Your task to perform on an android device: View the shopping cart on costco. Image 0: 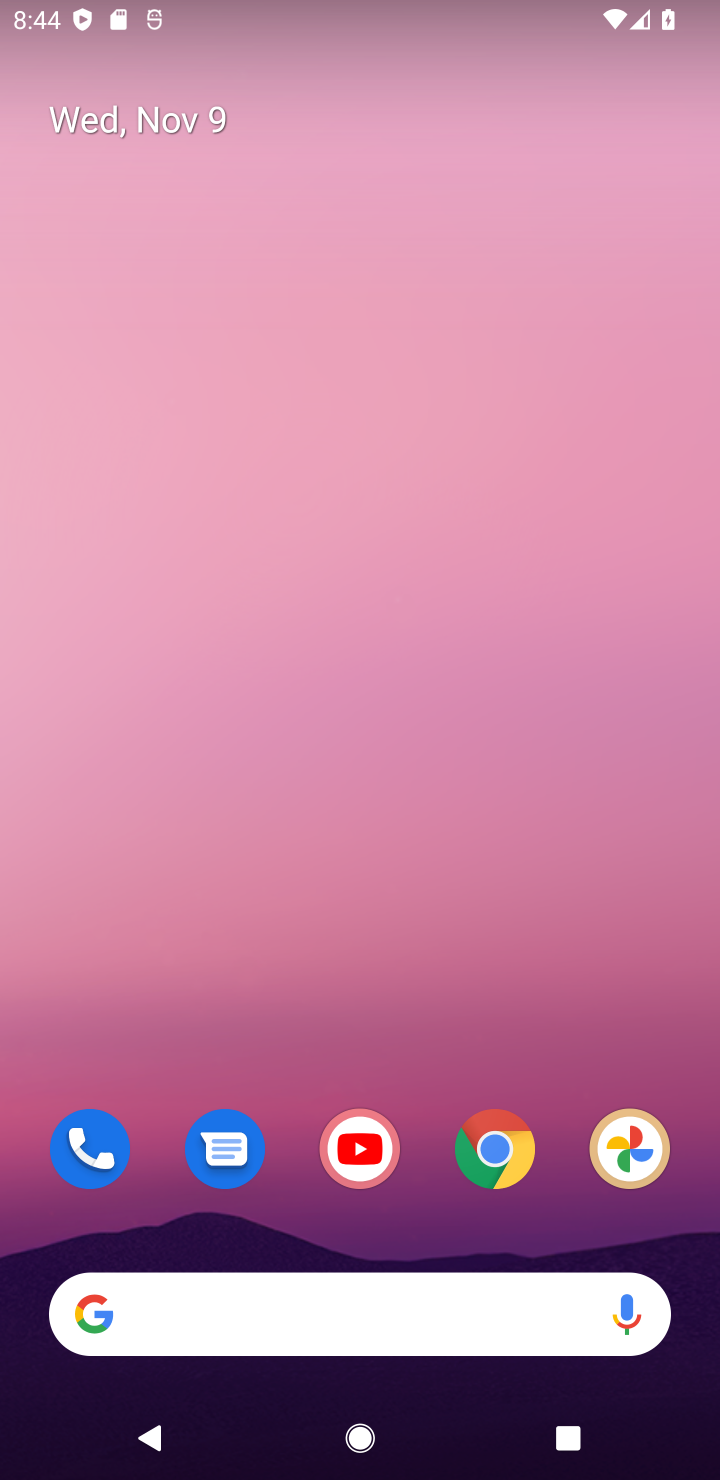
Step 0: click (492, 1157)
Your task to perform on an android device: View the shopping cart on costco. Image 1: 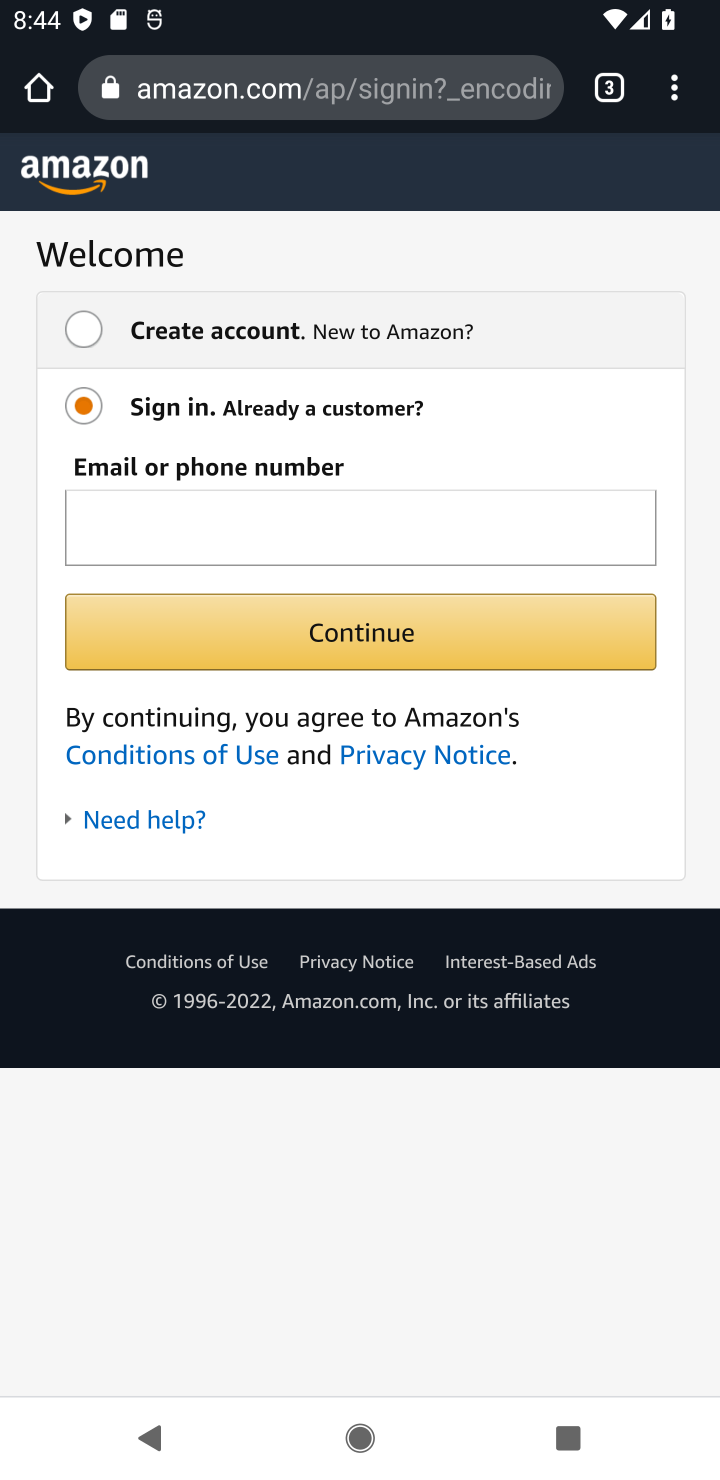
Step 1: press back button
Your task to perform on an android device: View the shopping cart on costco. Image 2: 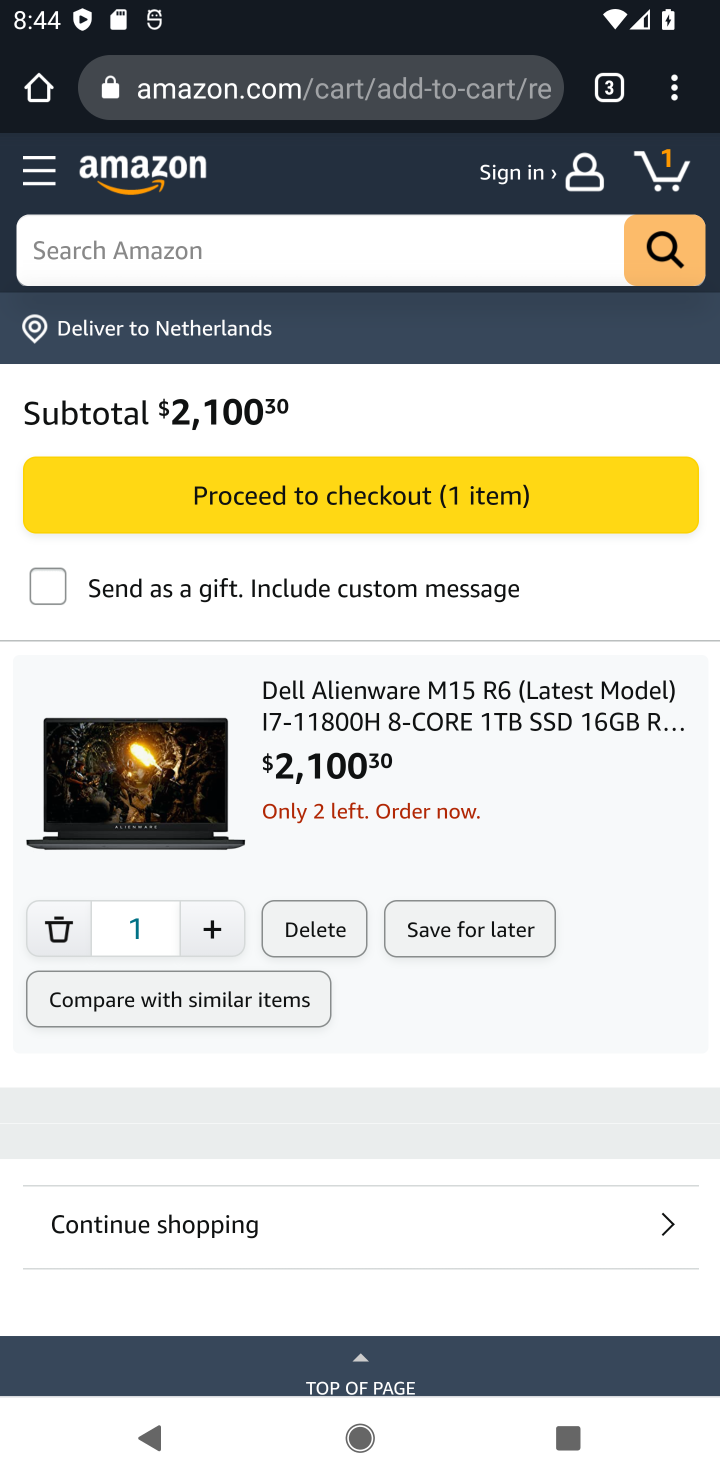
Step 2: click (304, 917)
Your task to perform on an android device: View the shopping cart on costco. Image 3: 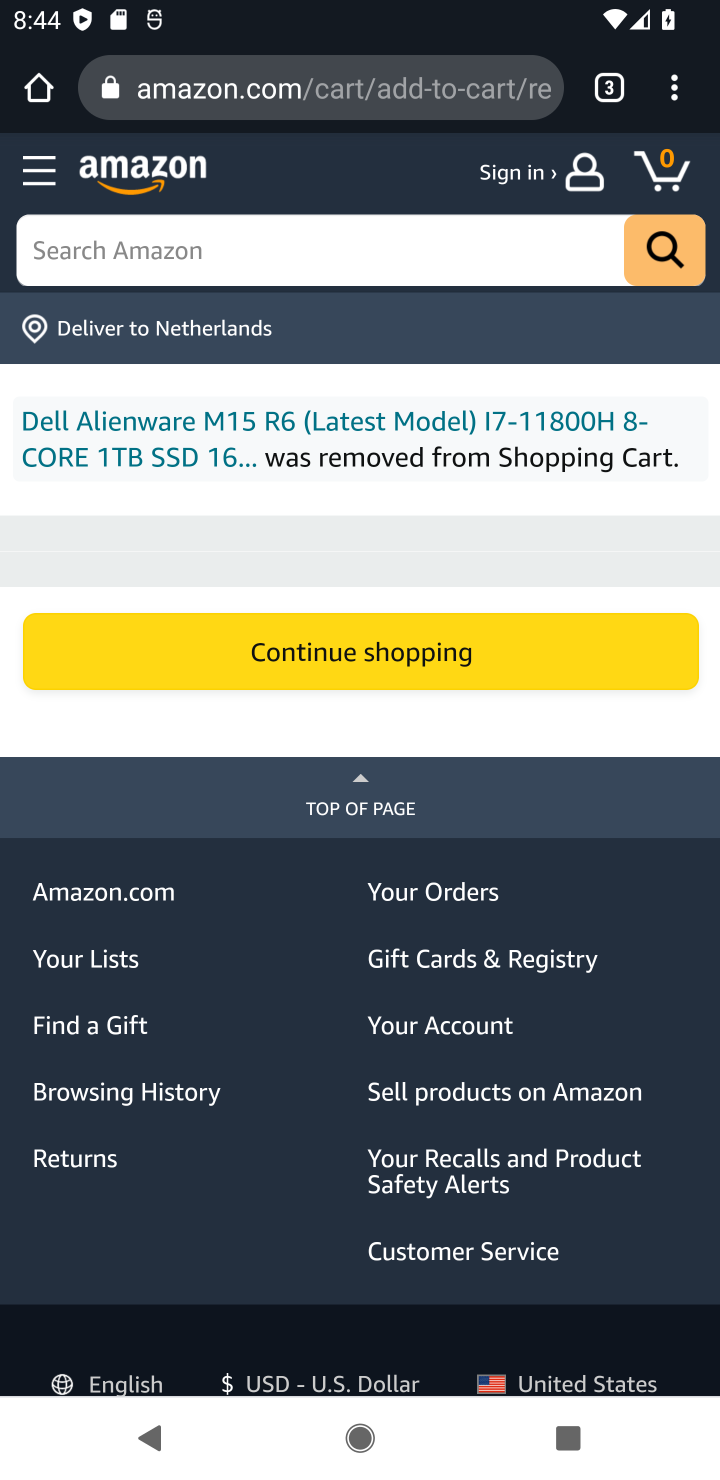
Step 3: click (622, 84)
Your task to perform on an android device: View the shopping cart on costco. Image 4: 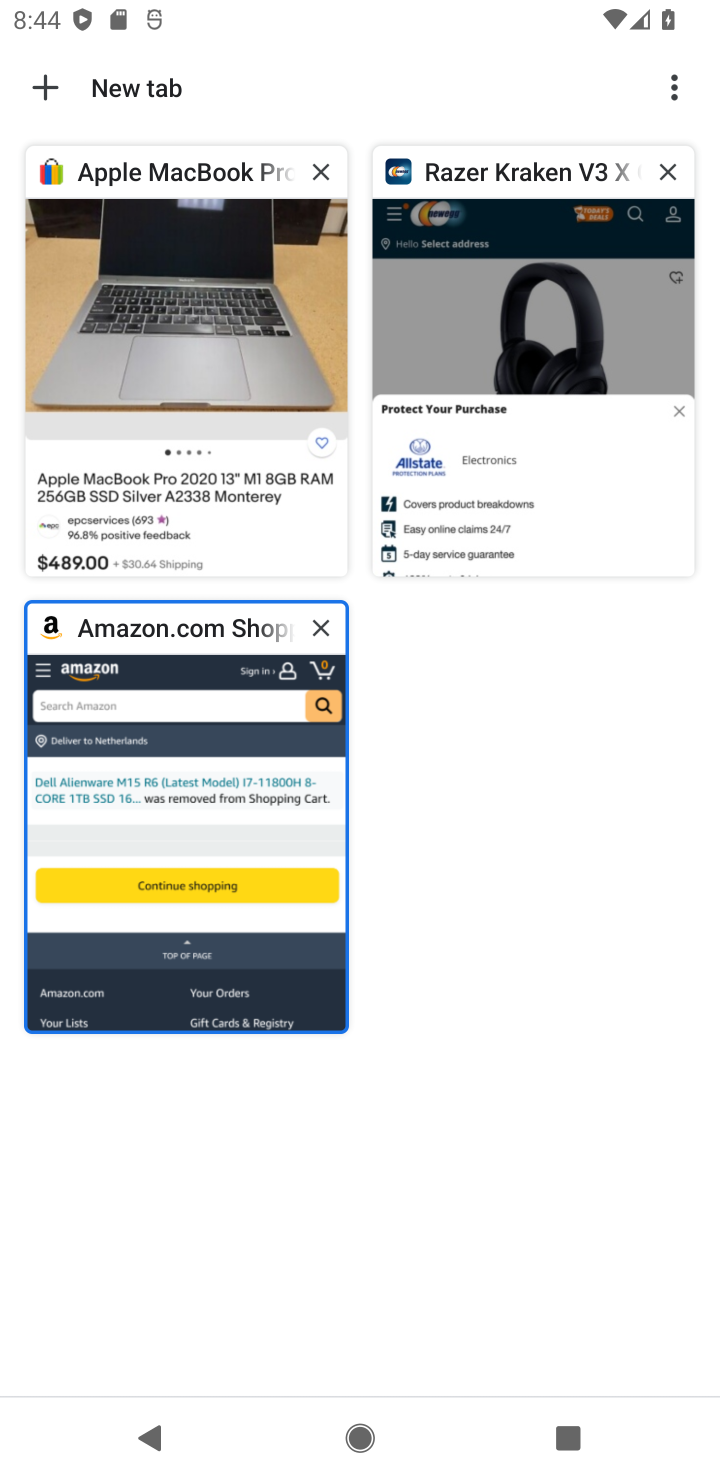
Step 4: click (39, 96)
Your task to perform on an android device: View the shopping cart on costco. Image 5: 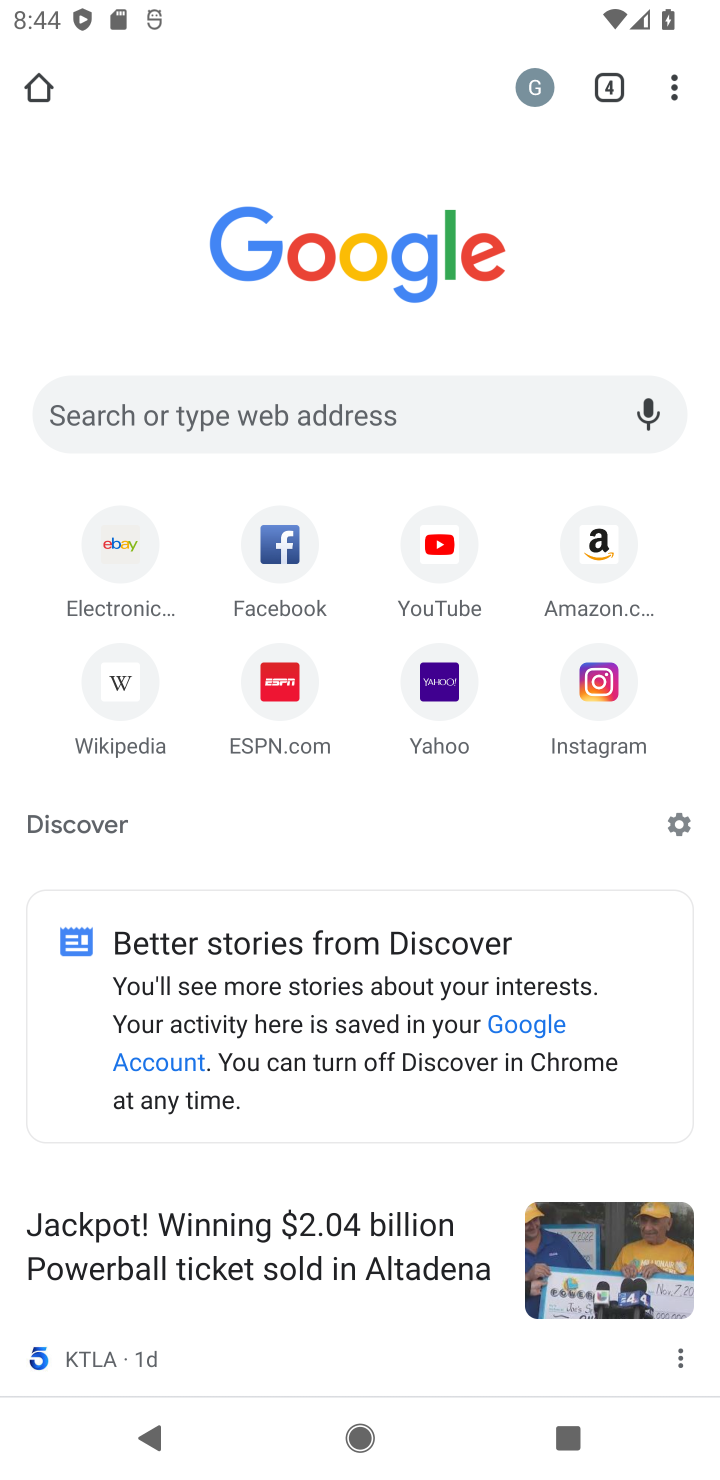
Step 5: click (222, 400)
Your task to perform on an android device: View the shopping cart on costco. Image 6: 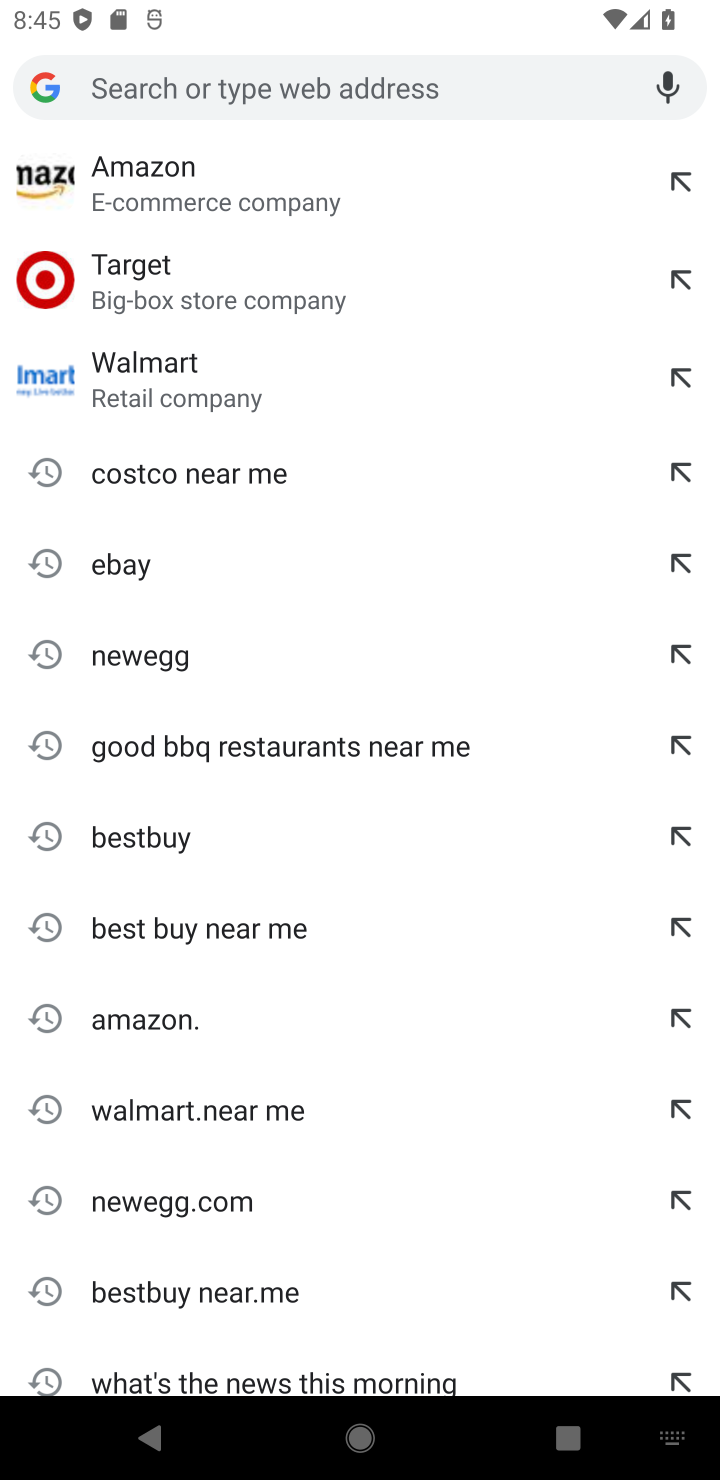
Step 6: click (117, 83)
Your task to perform on an android device: View the shopping cart on costco. Image 7: 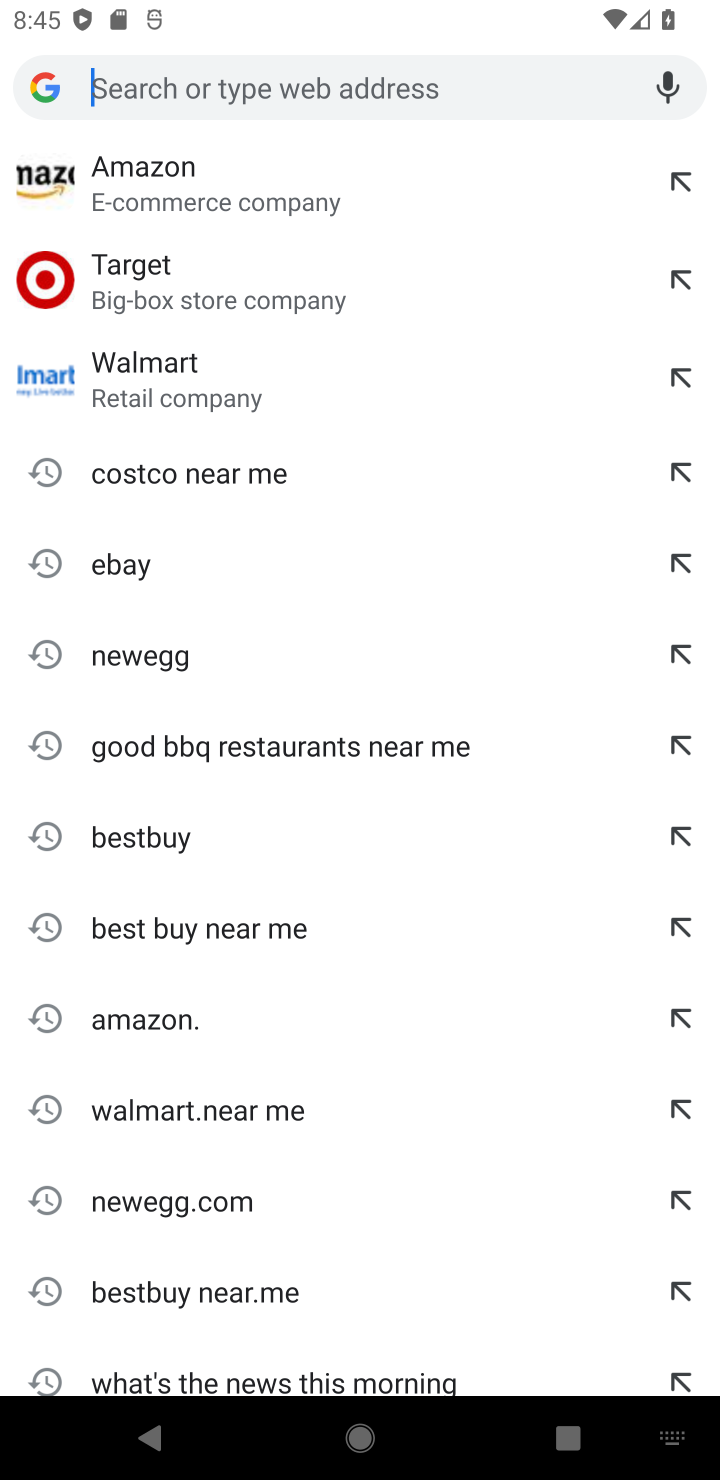
Step 7: type "costco"
Your task to perform on an android device: View the shopping cart on costco. Image 8: 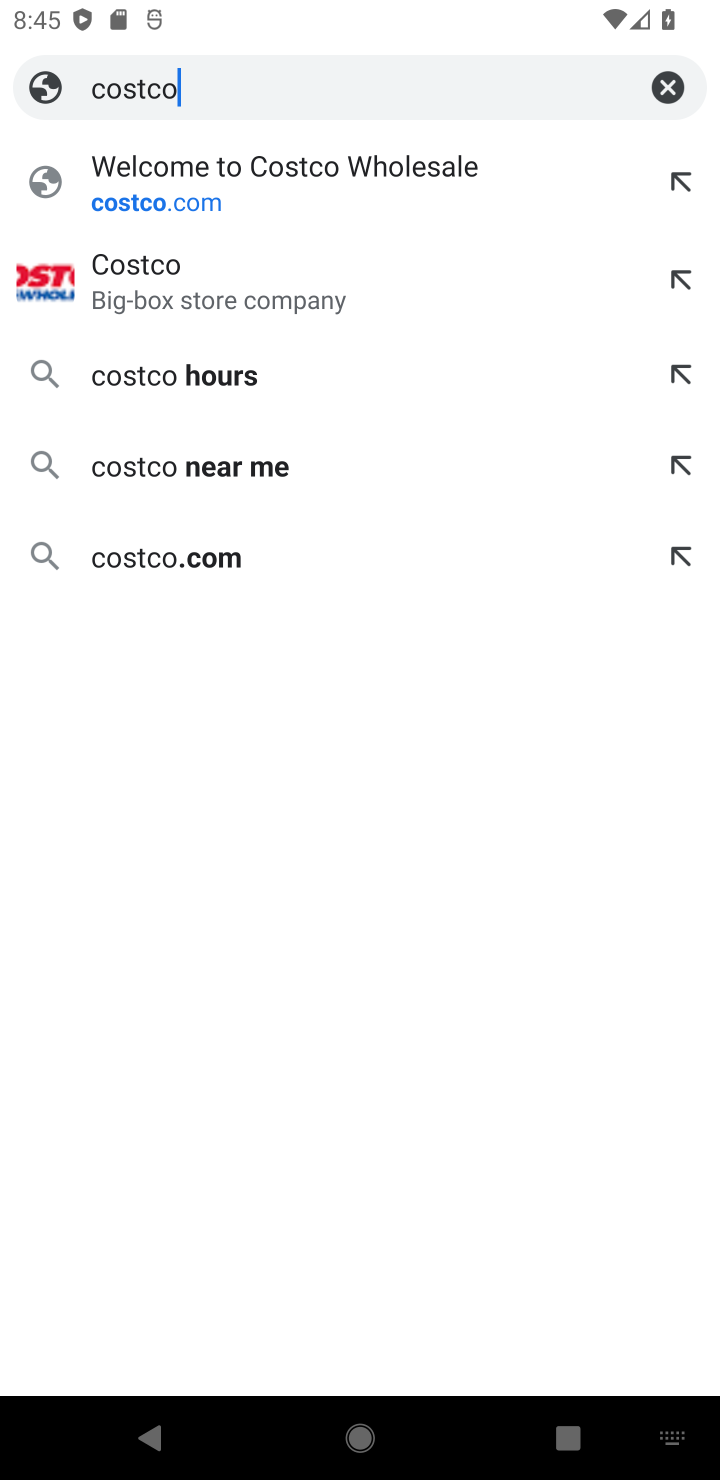
Step 8: click (257, 176)
Your task to perform on an android device: View the shopping cart on costco. Image 9: 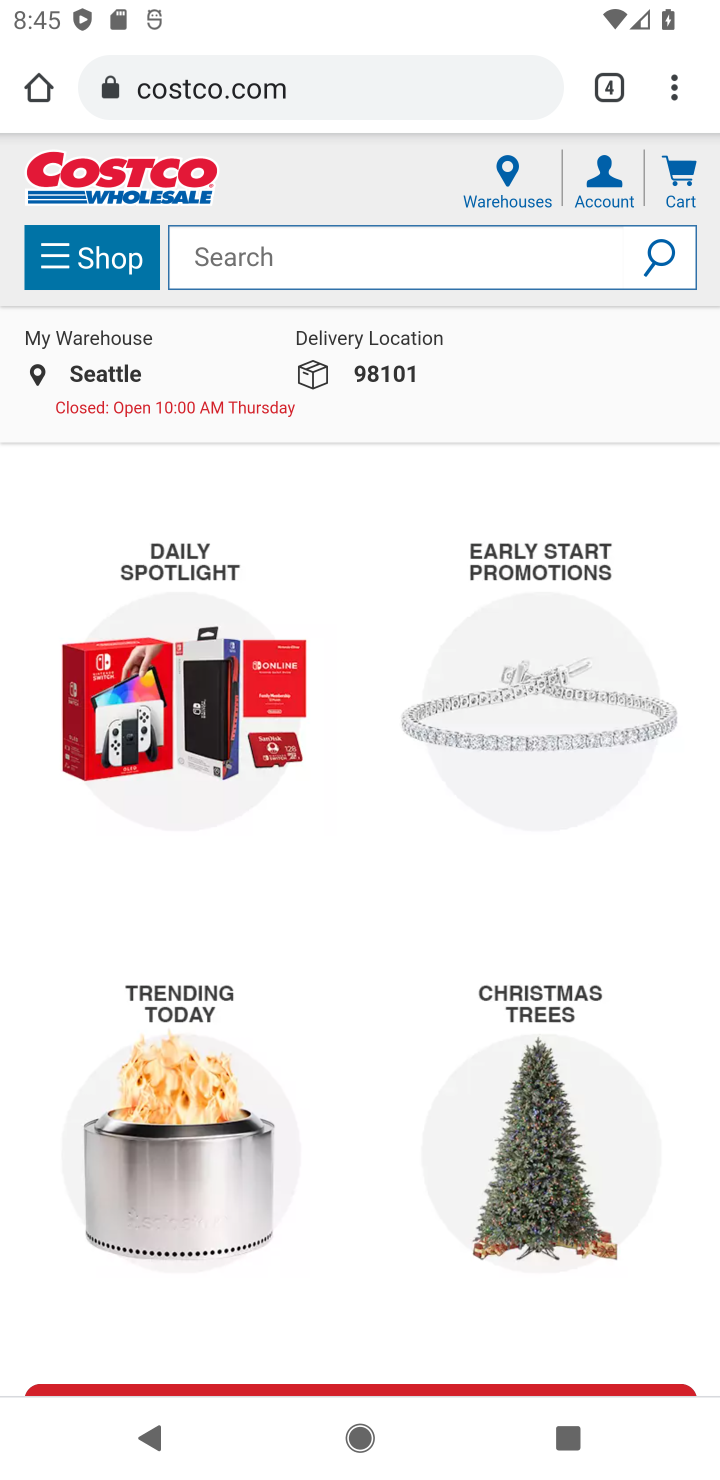
Step 9: task complete